Your task to perform on an android device: Clear the cart on costco. Search for "usb-c to usb-b" on costco, select the first entry, and add it to the cart. Image 0: 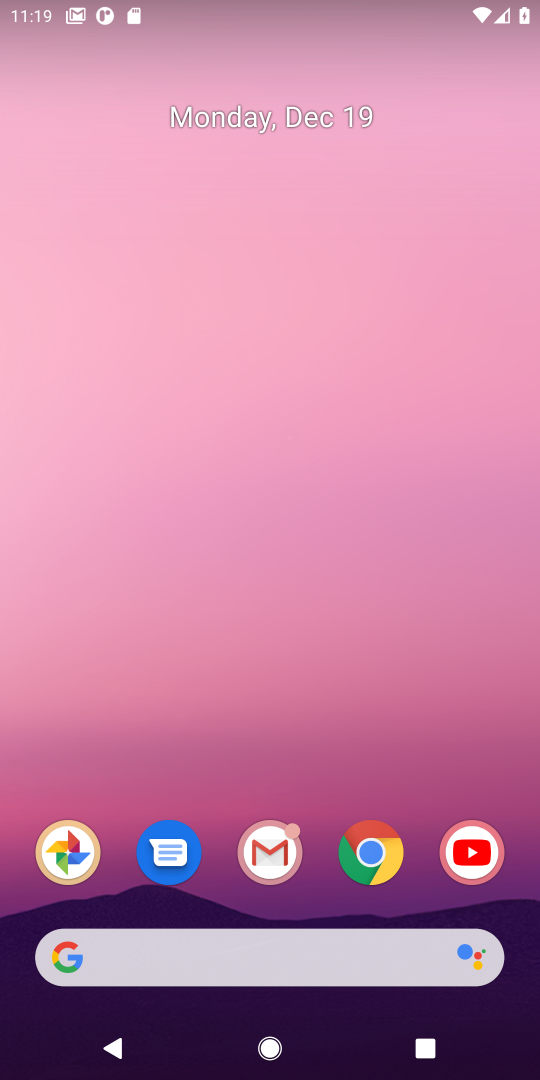
Step 0: click (373, 845)
Your task to perform on an android device: Clear the cart on costco. Search for "usb-c to usb-b" on costco, select the first entry, and add it to the cart. Image 1: 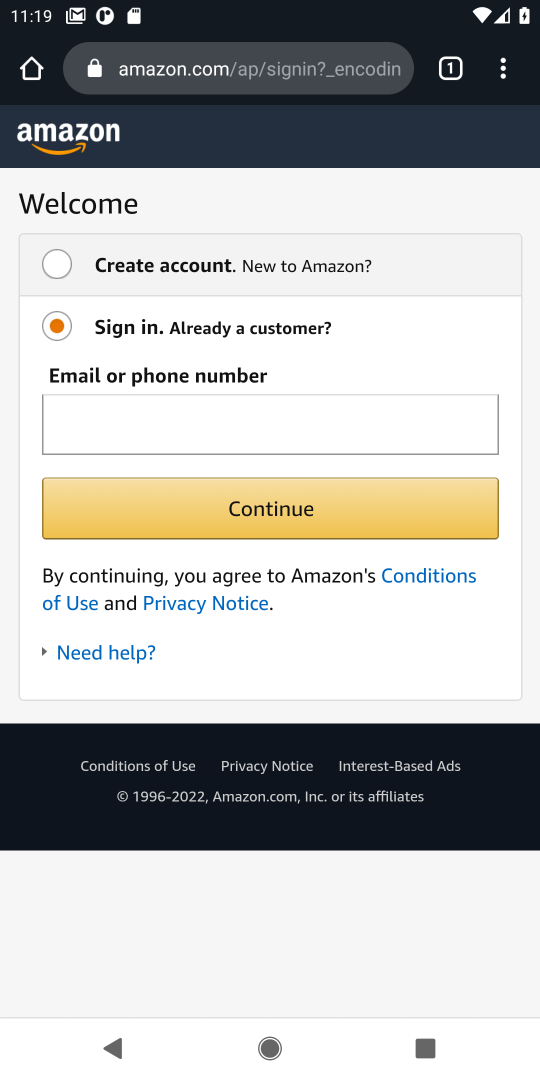
Step 1: click (222, 80)
Your task to perform on an android device: Clear the cart on costco. Search for "usb-c to usb-b" on costco, select the first entry, and add it to the cart. Image 2: 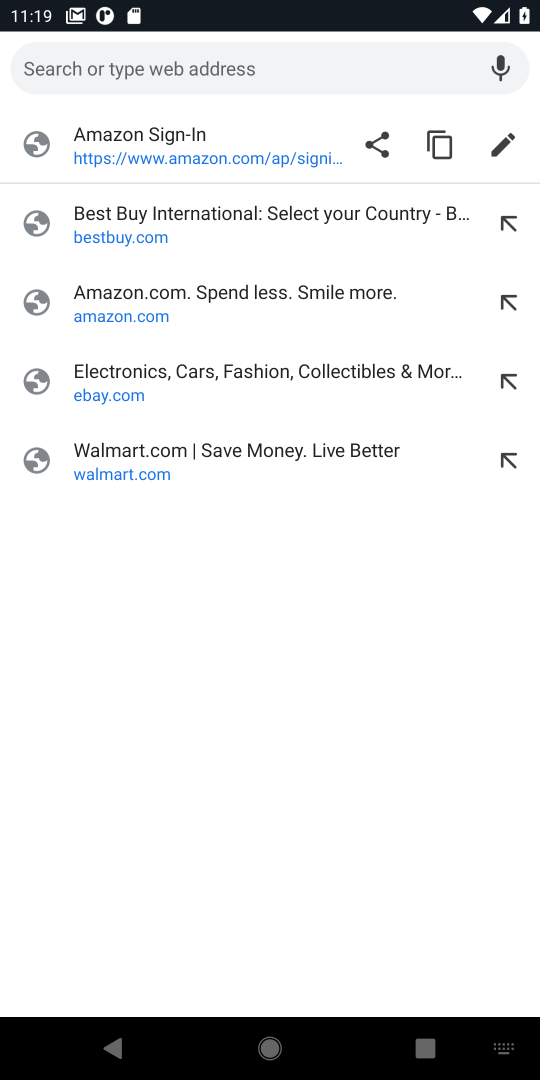
Step 2: type "costco.com"
Your task to perform on an android device: Clear the cart on costco. Search for "usb-c to usb-b" on costco, select the first entry, and add it to the cart. Image 3: 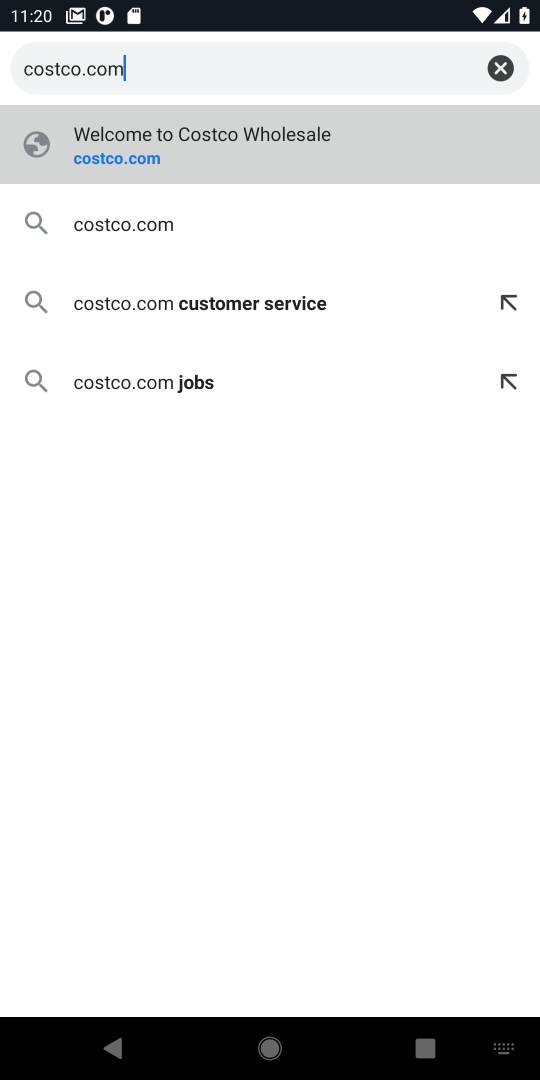
Step 3: click (112, 156)
Your task to perform on an android device: Clear the cart on costco. Search for "usb-c to usb-b" on costco, select the first entry, and add it to the cart. Image 4: 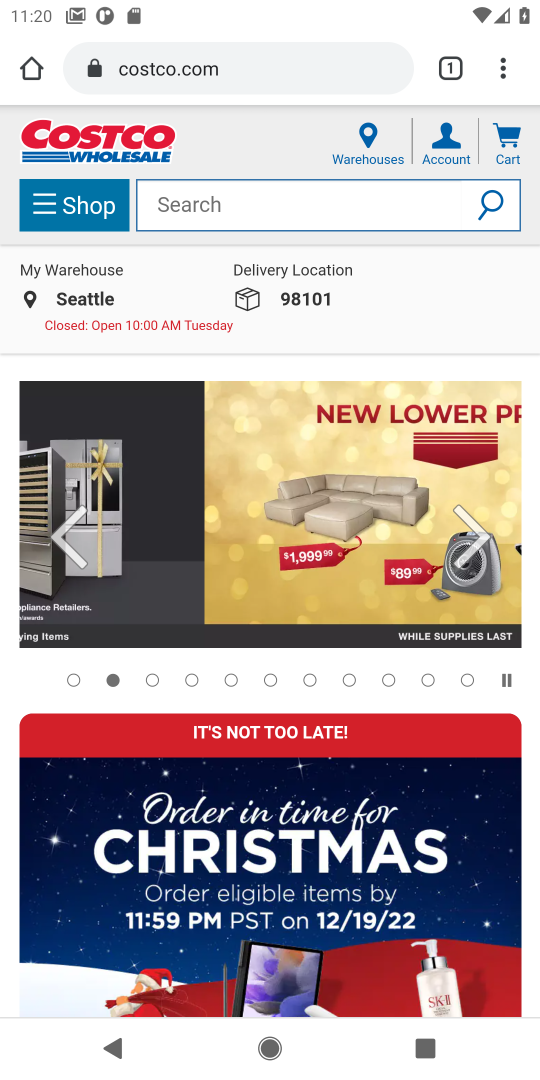
Step 4: click (504, 156)
Your task to perform on an android device: Clear the cart on costco. Search for "usb-c to usb-b" on costco, select the first entry, and add it to the cart. Image 5: 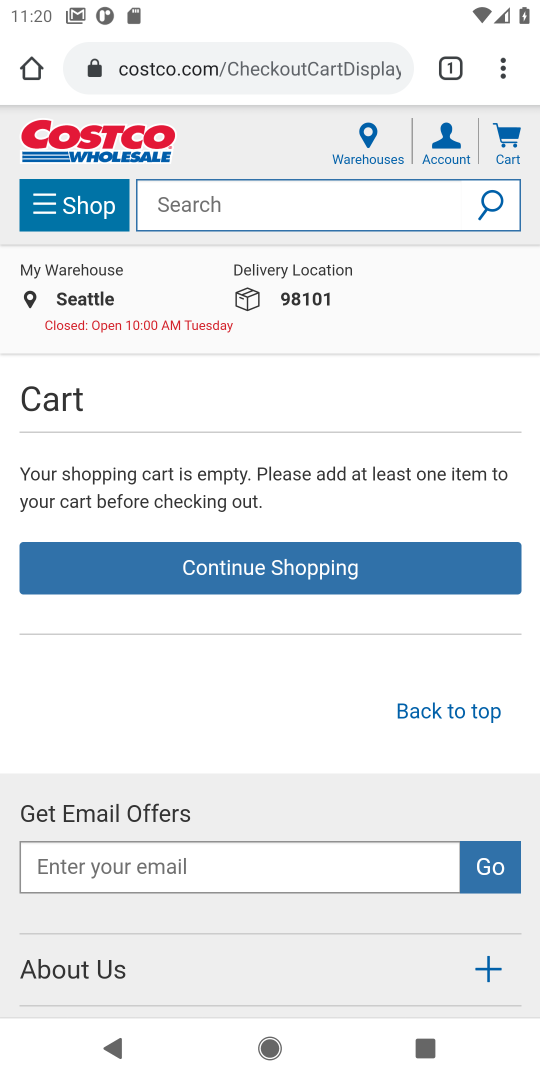
Step 5: click (228, 201)
Your task to perform on an android device: Clear the cart on costco. Search for "usb-c to usb-b" on costco, select the first entry, and add it to the cart. Image 6: 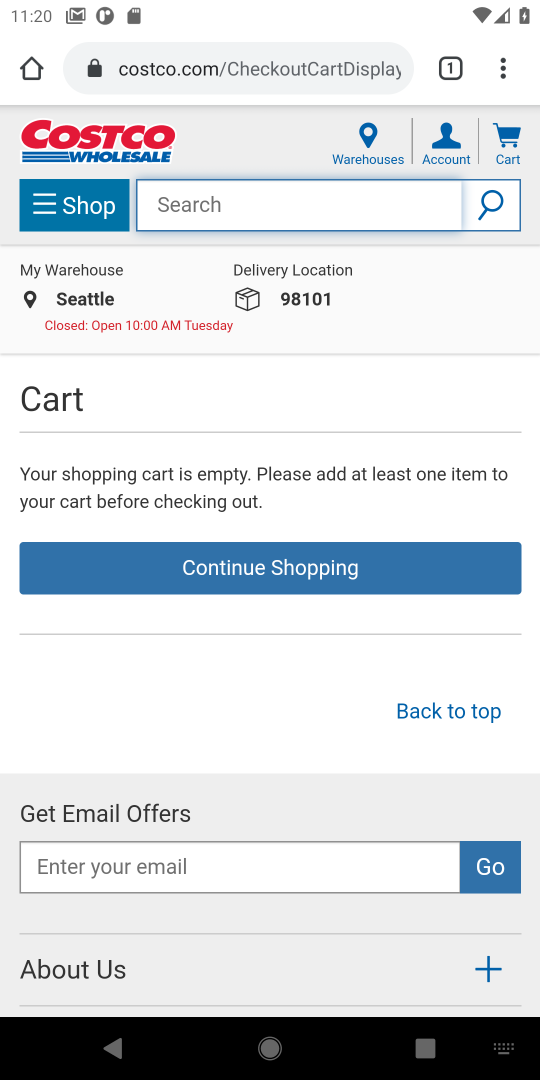
Step 6: type "usb-c to usb-b"
Your task to perform on an android device: Clear the cart on costco. Search for "usb-c to usb-b" on costco, select the first entry, and add it to the cart. Image 7: 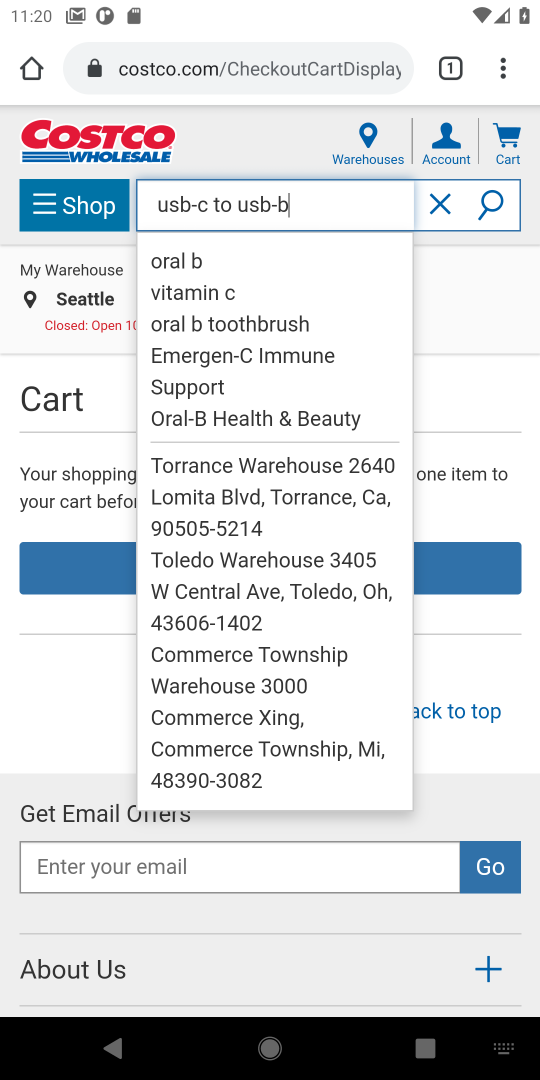
Step 7: click (485, 215)
Your task to perform on an android device: Clear the cart on costco. Search for "usb-c to usb-b" on costco, select the first entry, and add it to the cart. Image 8: 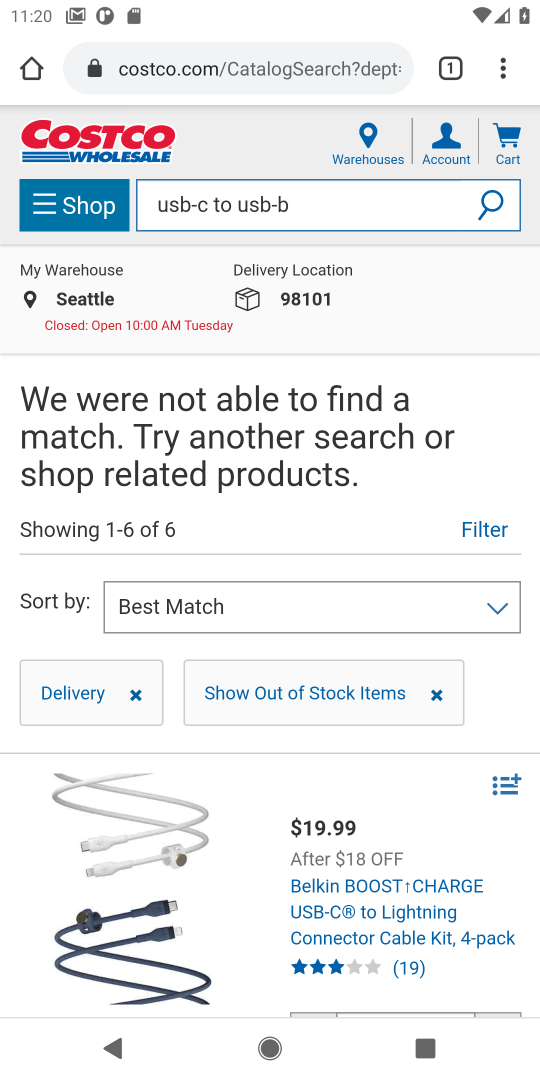
Step 8: task complete